Your task to perform on an android device: Search for electric lawnmowers on Home Depot Image 0: 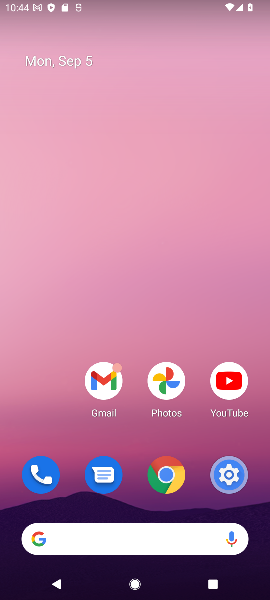
Step 0: click (107, 539)
Your task to perform on an android device: Search for electric lawnmowers on Home Depot Image 1: 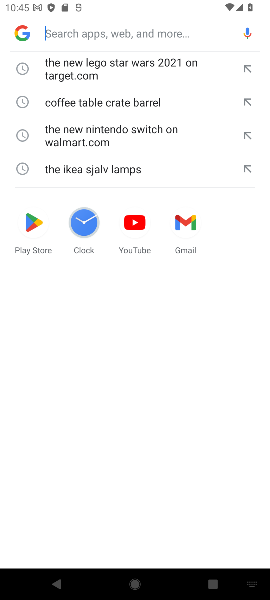
Step 1: type "electric lawnmowers on Home Depot"
Your task to perform on an android device: Search for electric lawnmowers on Home Depot Image 2: 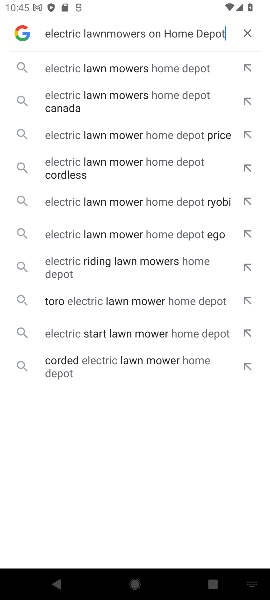
Step 2: click (173, 66)
Your task to perform on an android device: Search for electric lawnmowers on Home Depot Image 3: 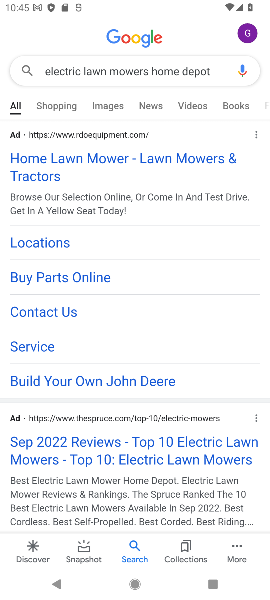
Step 3: task complete